Your task to perform on an android device: read, delete, or share a saved page in the chrome app Image 0: 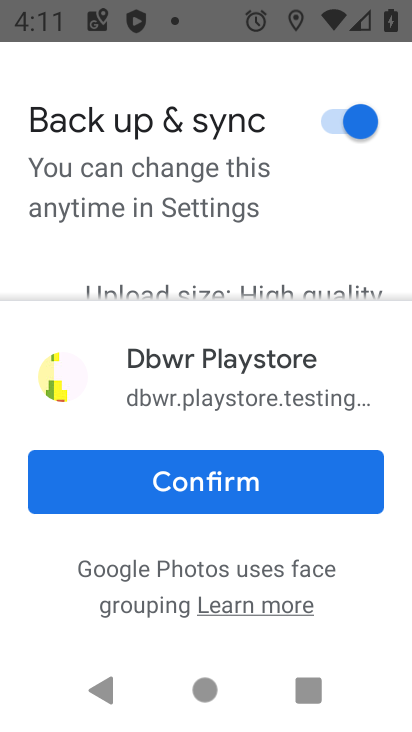
Step 0: press home button
Your task to perform on an android device: read, delete, or share a saved page in the chrome app Image 1: 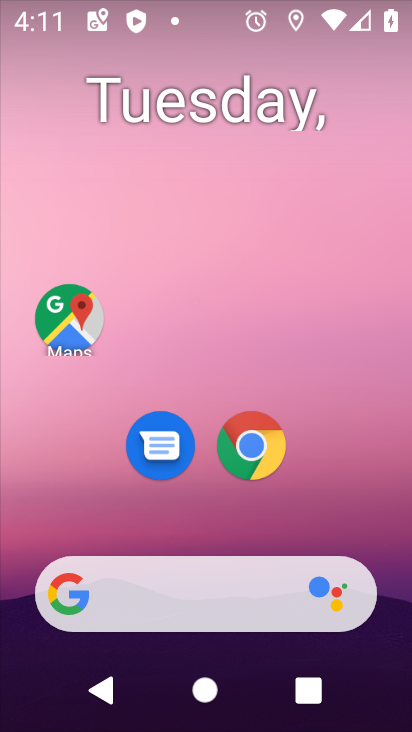
Step 1: drag from (303, 511) to (378, 0)
Your task to perform on an android device: read, delete, or share a saved page in the chrome app Image 2: 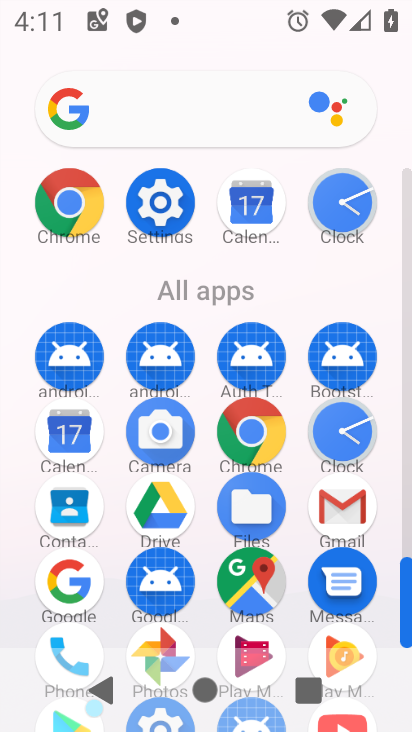
Step 2: click (262, 429)
Your task to perform on an android device: read, delete, or share a saved page in the chrome app Image 3: 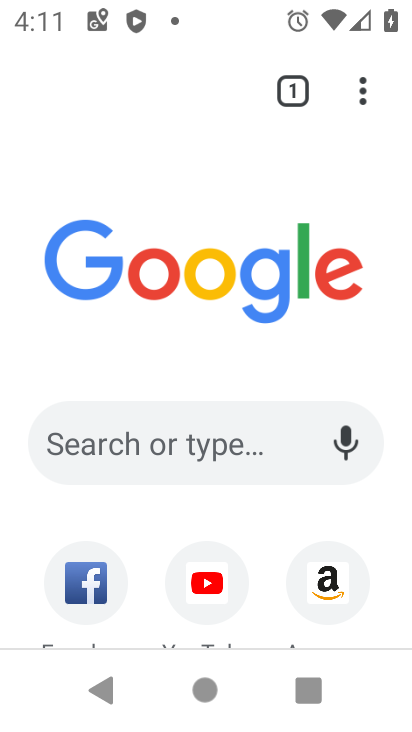
Step 3: click (365, 89)
Your task to perform on an android device: read, delete, or share a saved page in the chrome app Image 4: 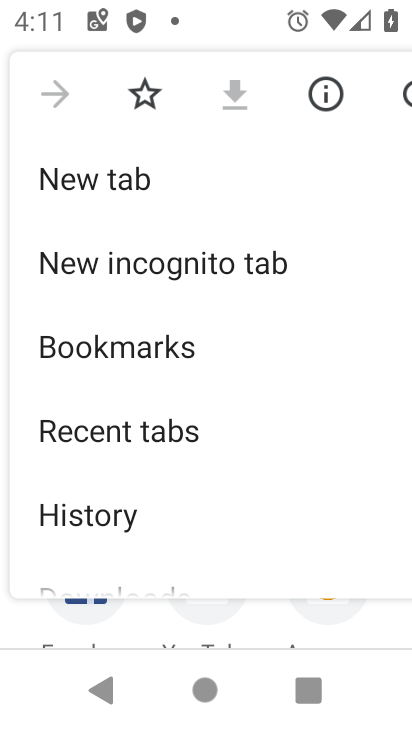
Step 4: drag from (146, 520) to (161, 212)
Your task to perform on an android device: read, delete, or share a saved page in the chrome app Image 5: 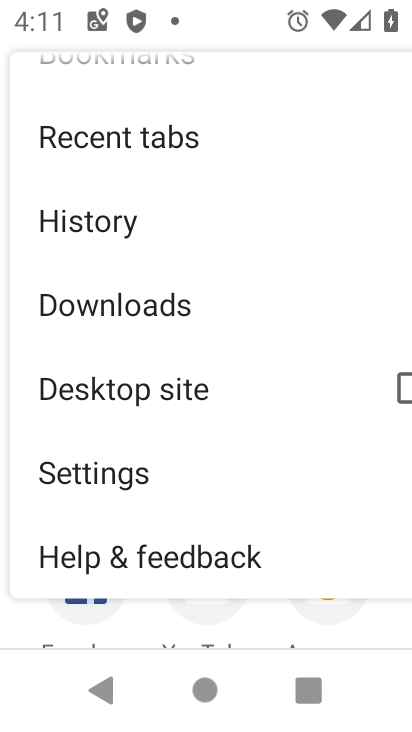
Step 5: click (154, 305)
Your task to perform on an android device: read, delete, or share a saved page in the chrome app Image 6: 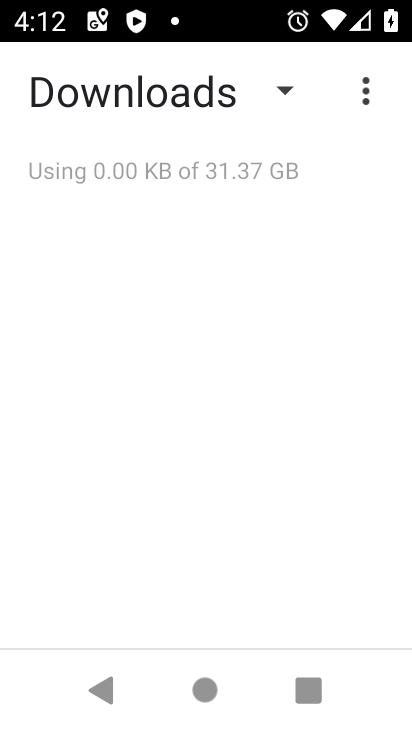
Step 6: task complete